Your task to perform on an android device: Add usb-c to usb-a to the cart on newegg.com Image 0: 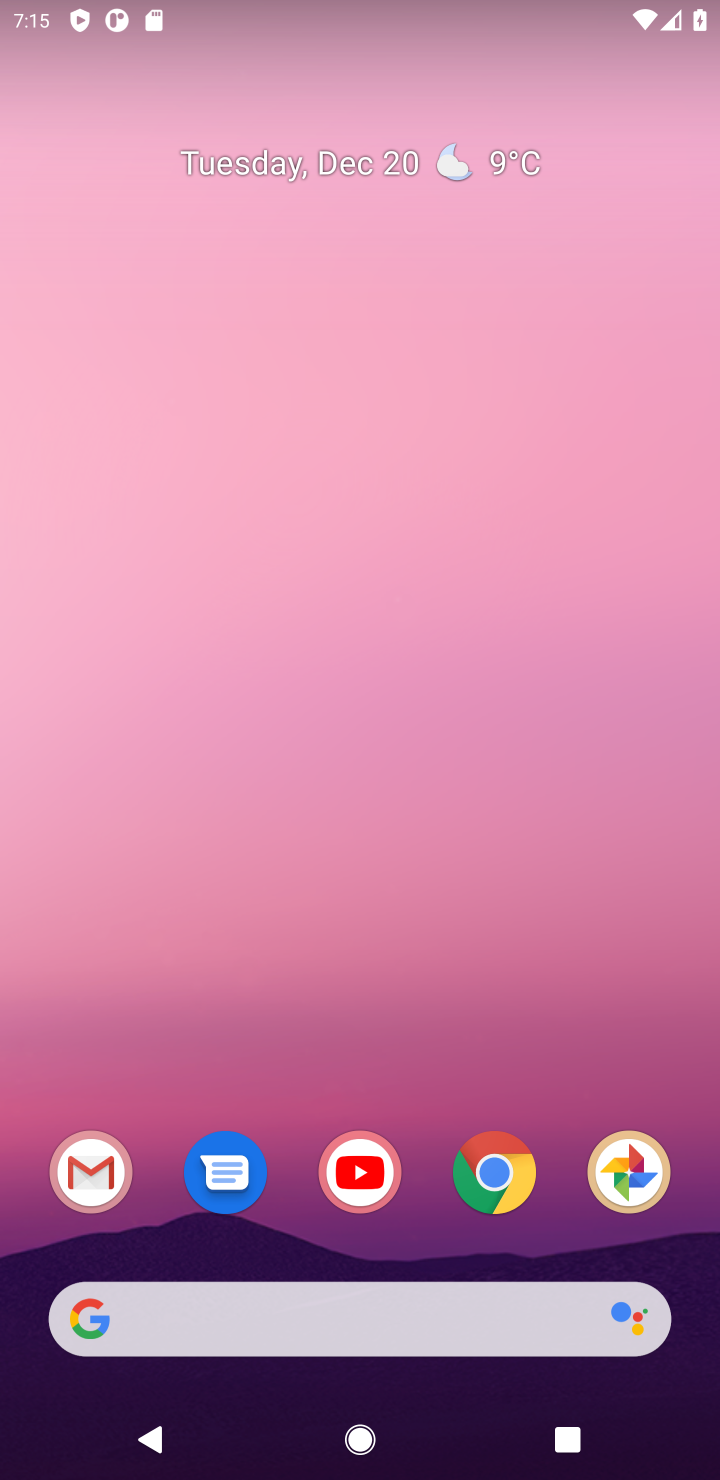
Step 0: press home button
Your task to perform on an android device: Add usb-c to usb-a to the cart on newegg.com Image 1: 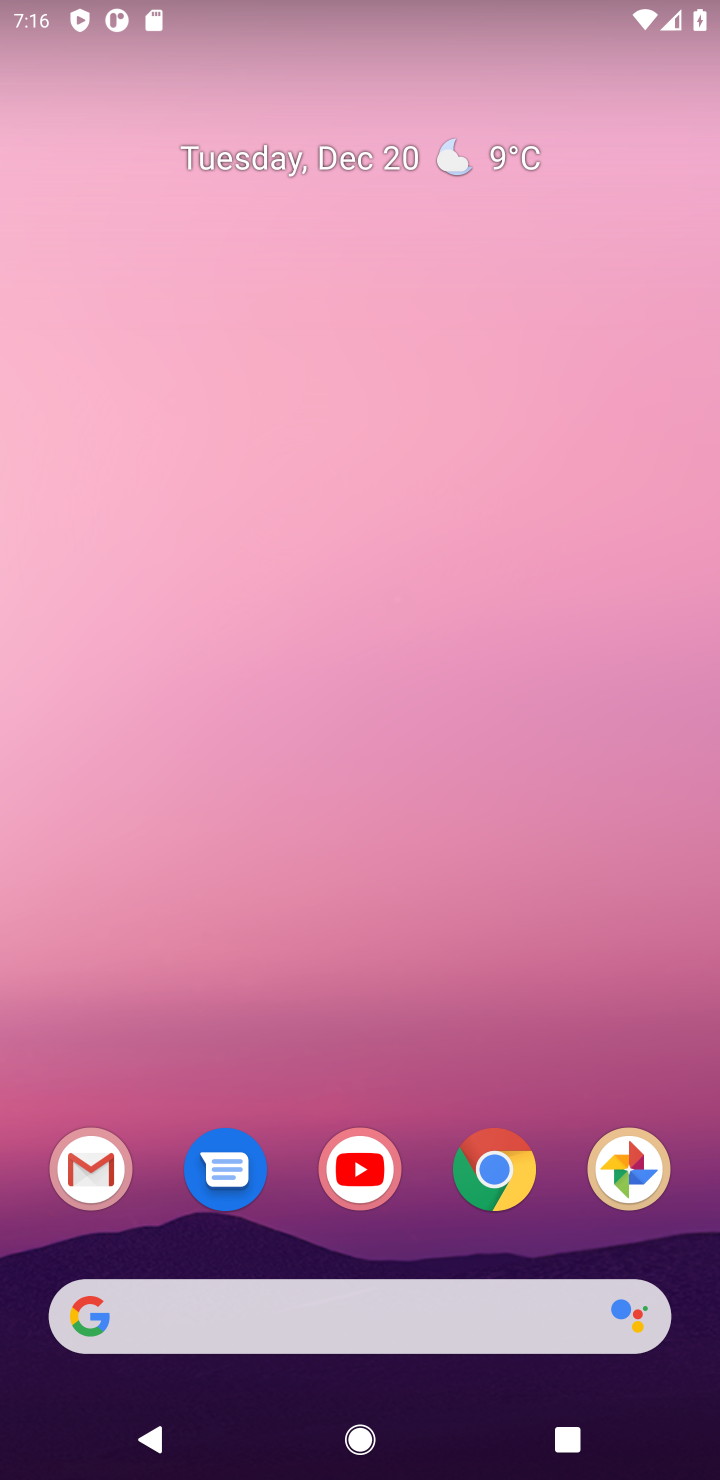
Step 1: click (507, 1195)
Your task to perform on an android device: Add usb-c to usb-a to the cart on newegg.com Image 2: 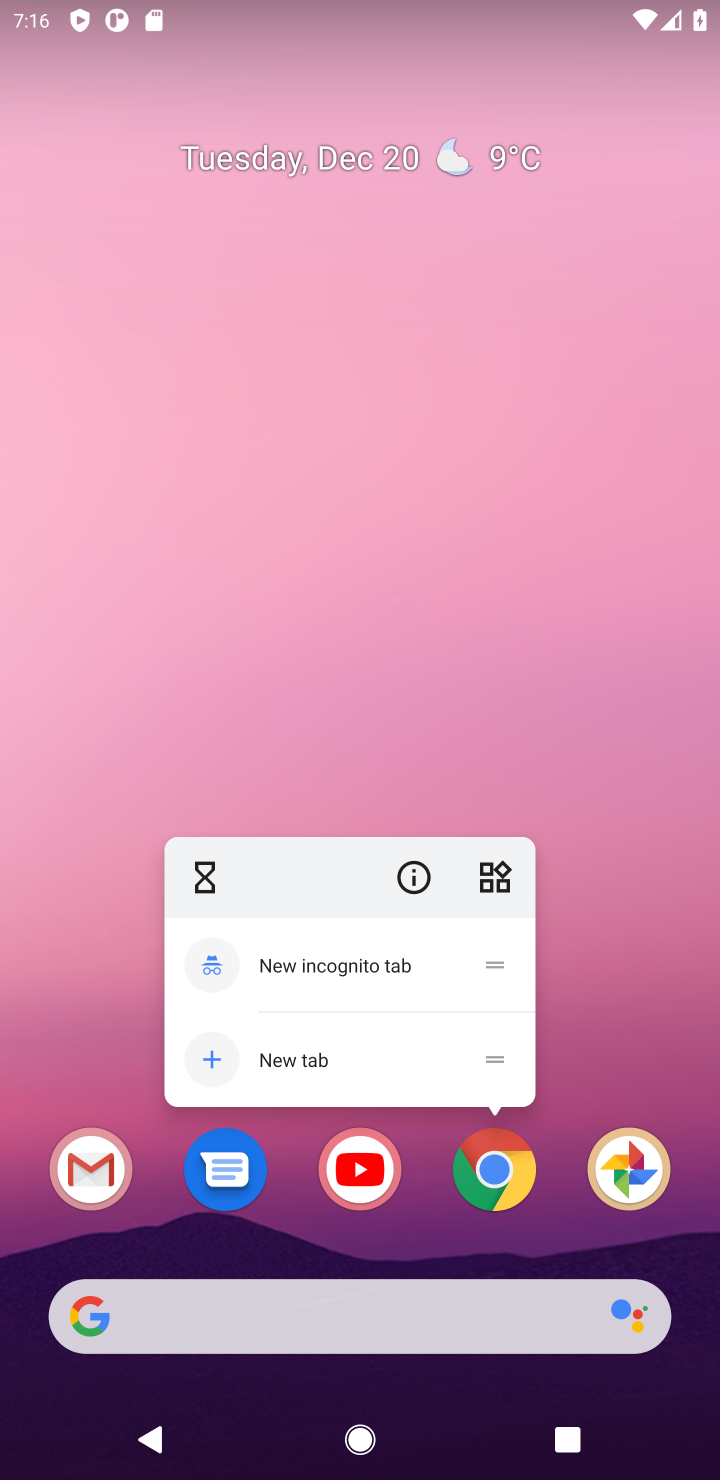
Step 2: click (507, 1195)
Your task to perform on an android device: Add usb-c to usb-a to the cart on newegg.com Image 3: 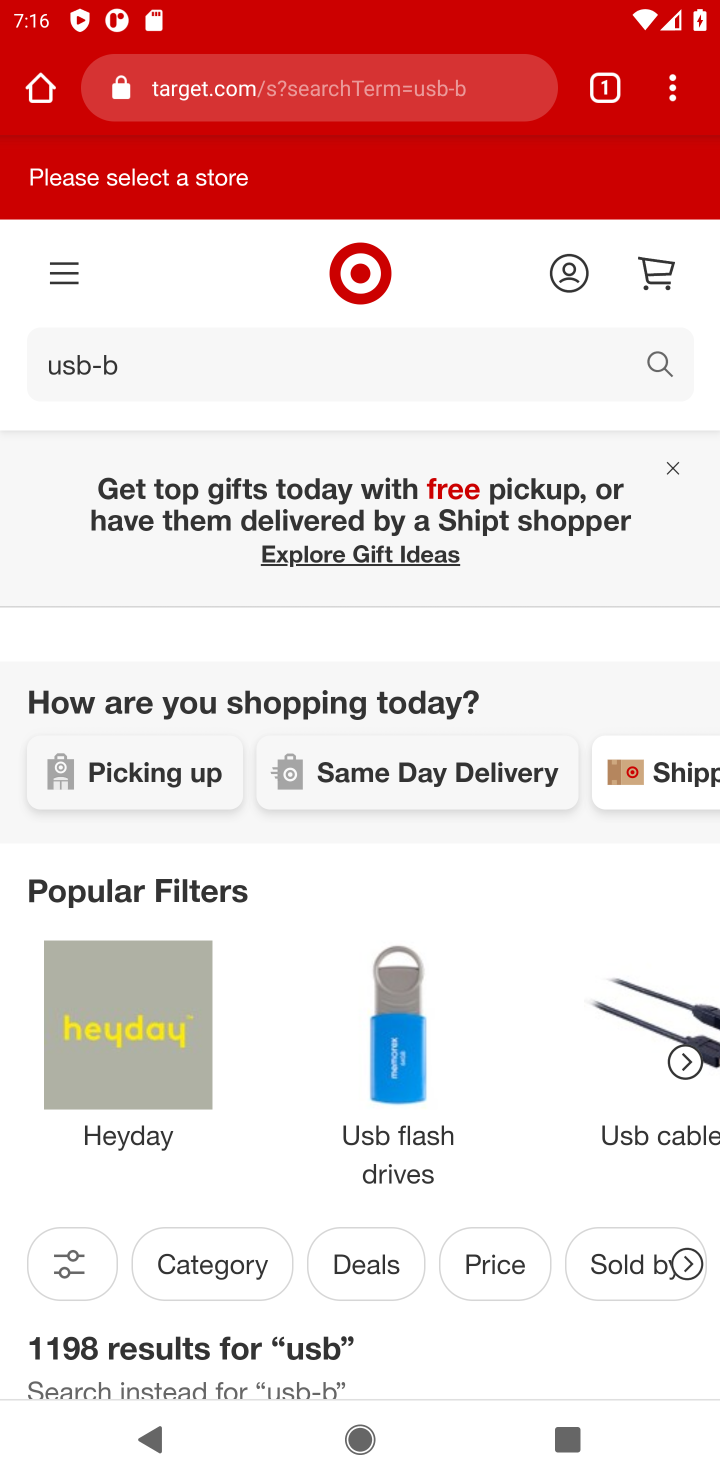
Step 3: click (252, 109)
Your task to perform on an android device: Add usb-c to usb-a to the cart on newegg.com Image 4: 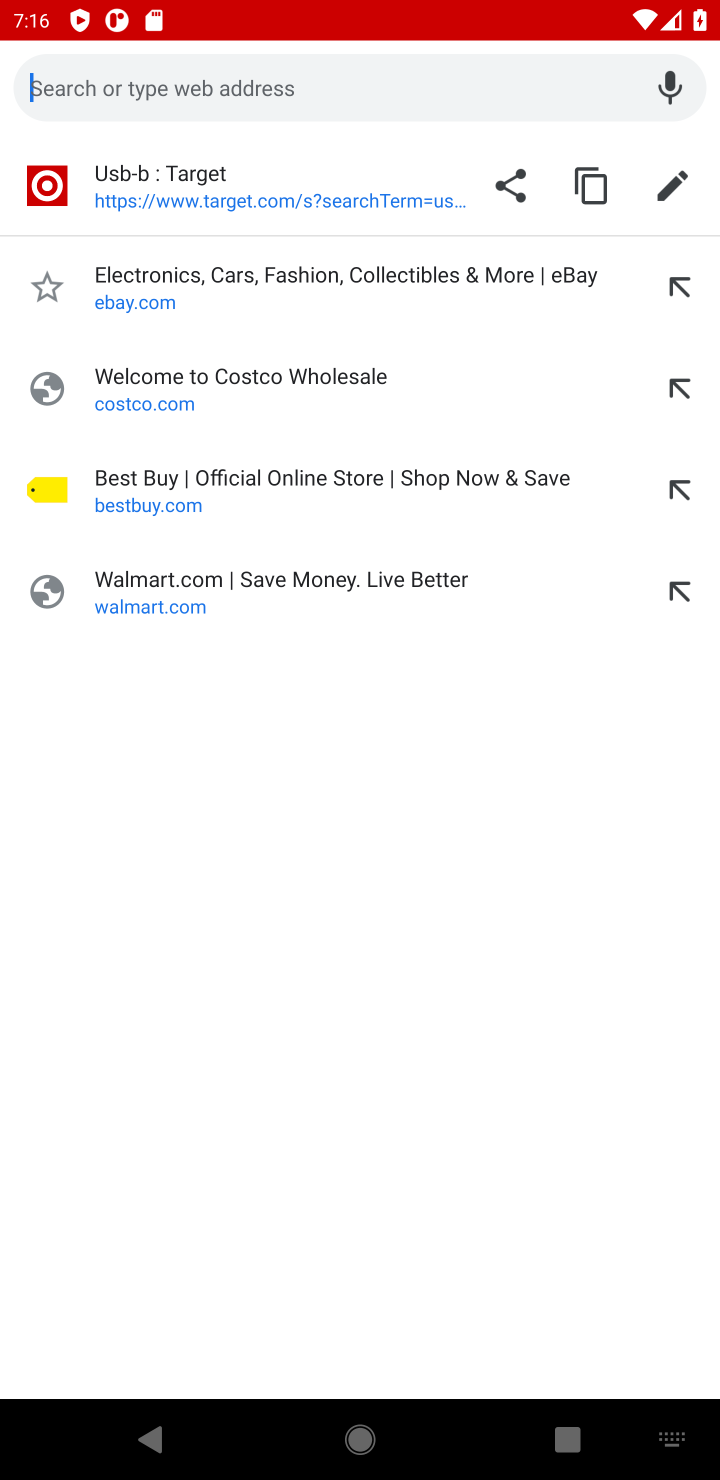
Step 4: type "newegg"
Your task to perform on an android device: Add usb-c to usb-a to the cart on newegg.com Image 5: 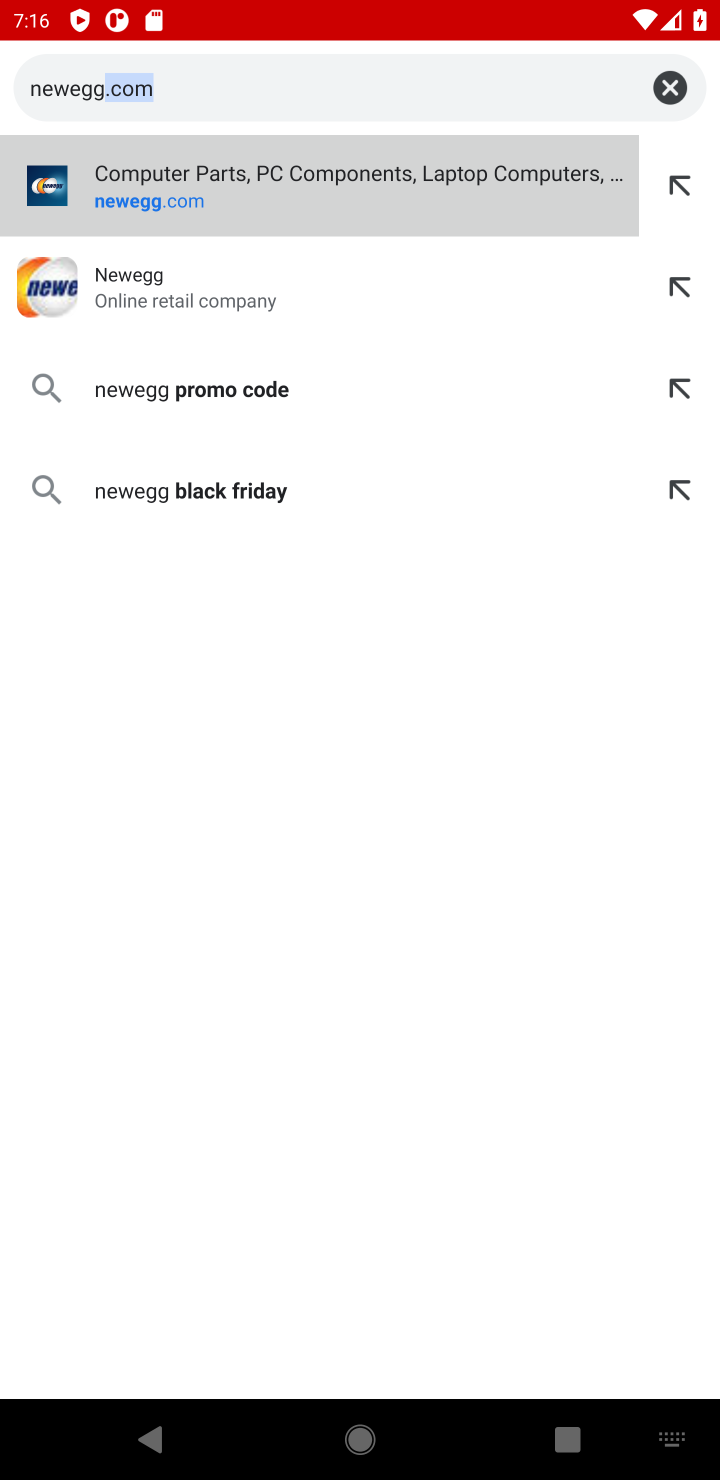
Step 5: click (247, 154)
Your task to perform on an android device: Add usb-c to usb-a to the cart on newegg.com Image 6: 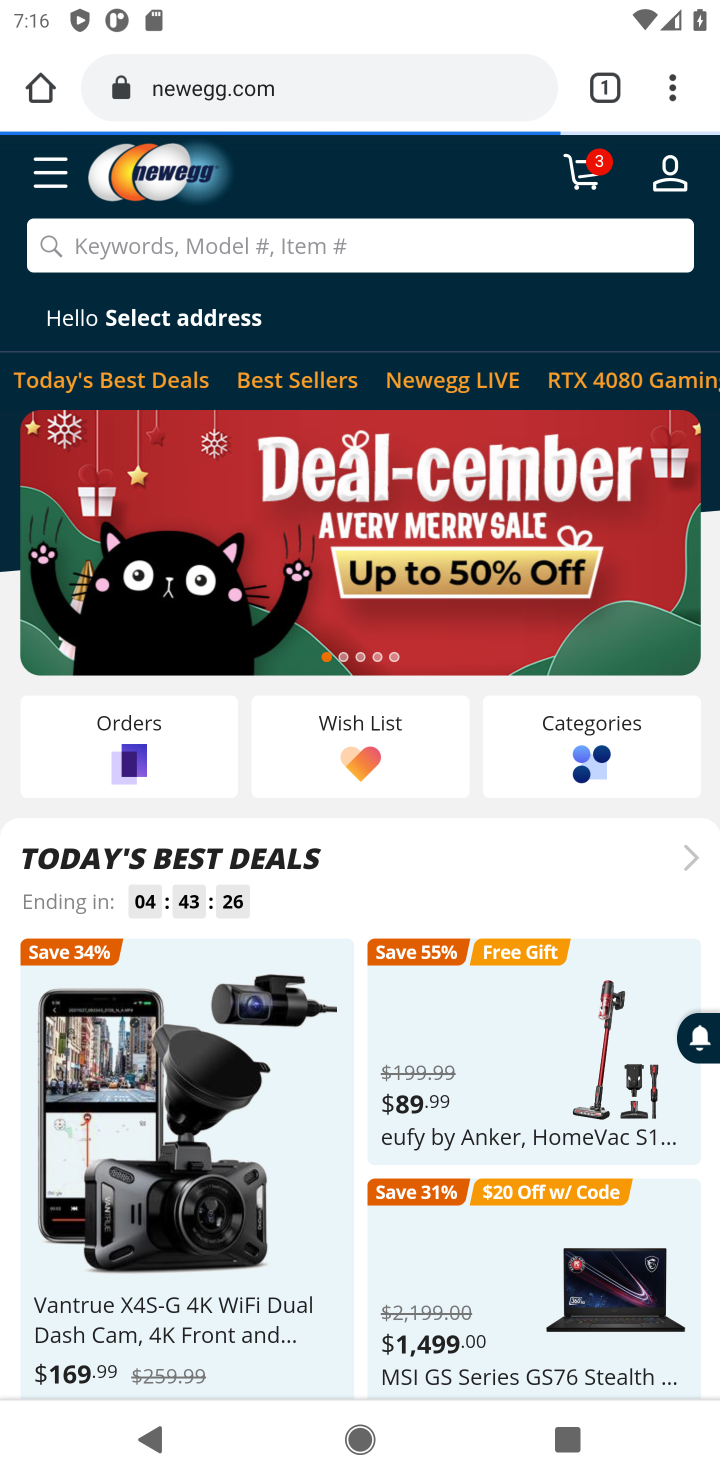
Step 6: click (207, 240)
Your task to perform on an android device: Add usb-c to usb-a to the cart on newegg.com Image 7: 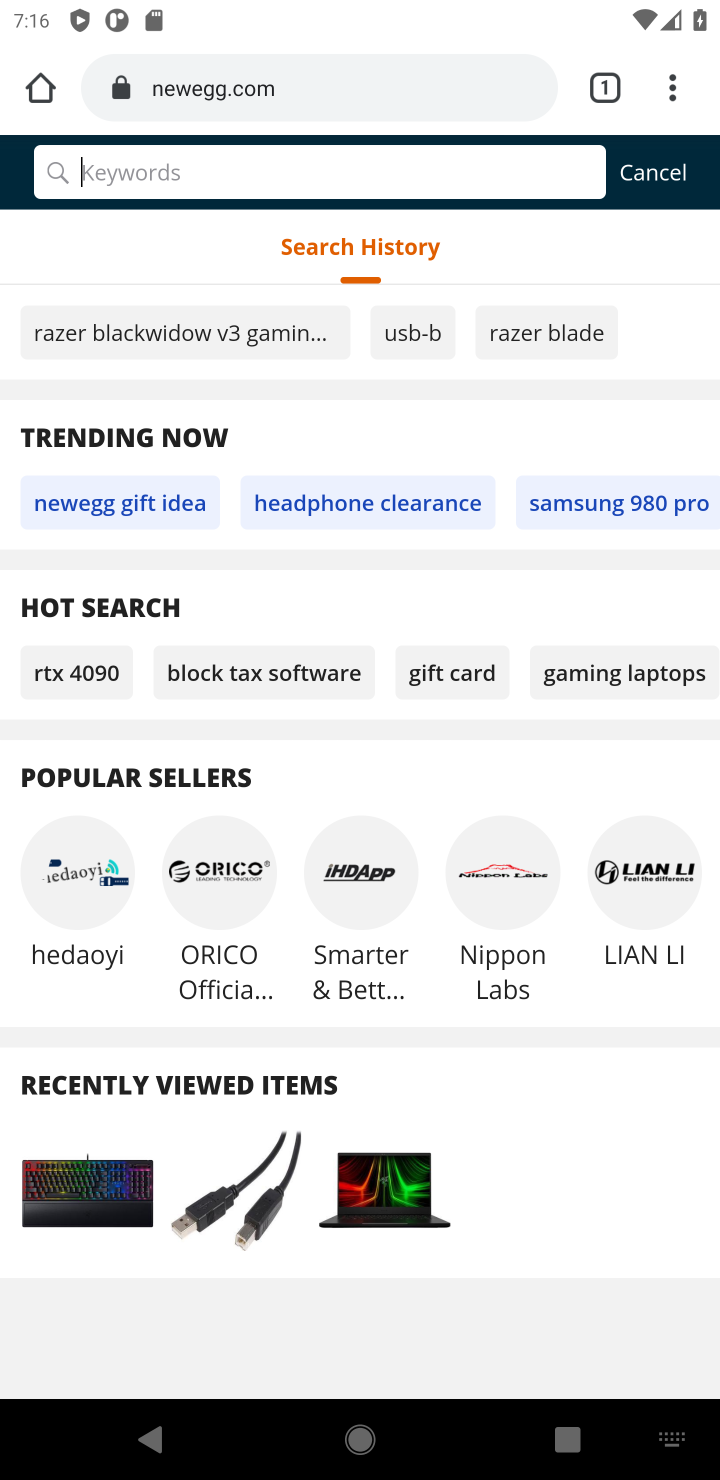
Step 7: type "usb-c to usb-a"
Your task to perform on an android device: Add usb-c to usb-a to the cart on newegg.com Image 8: 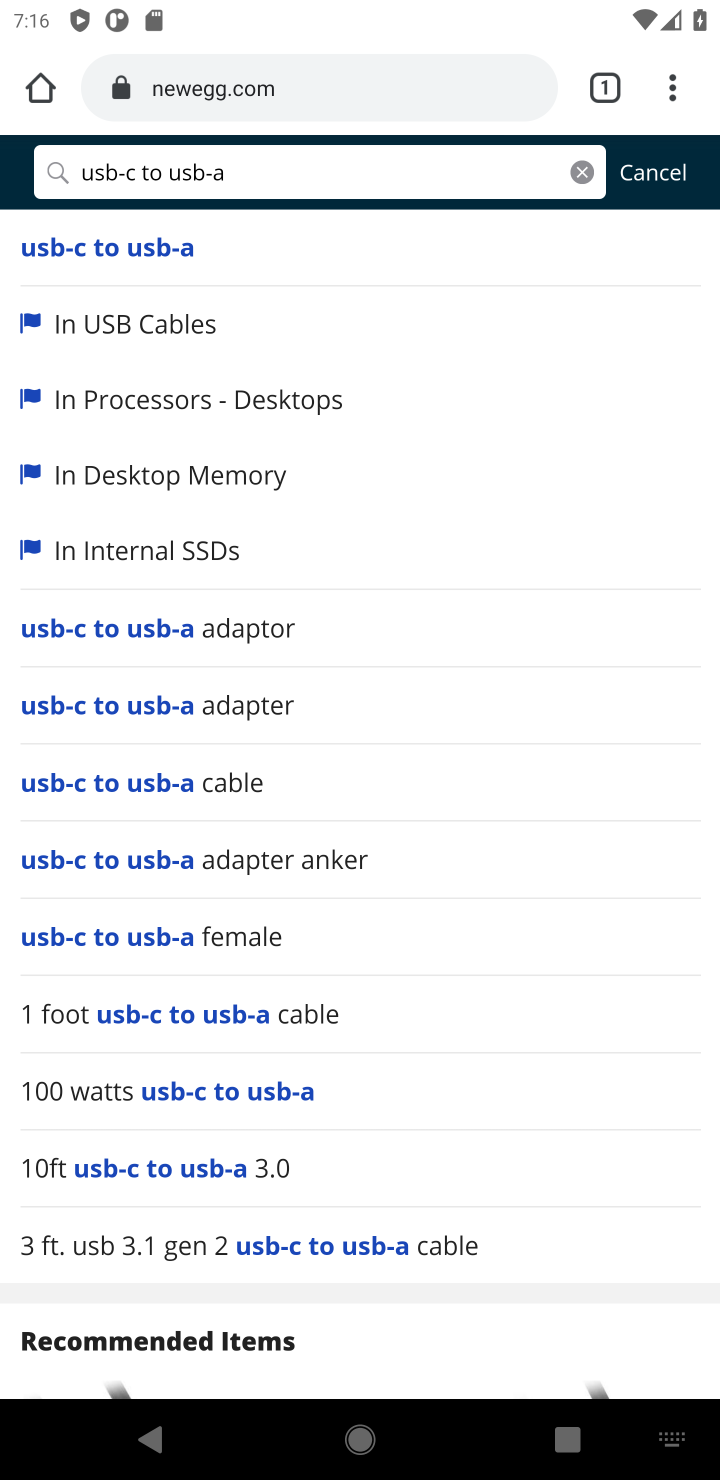
Step 8: click (91, 249)
Your task to perform on an android device: Add usb-c to usb-a to the cart on newegg.com Image 9: 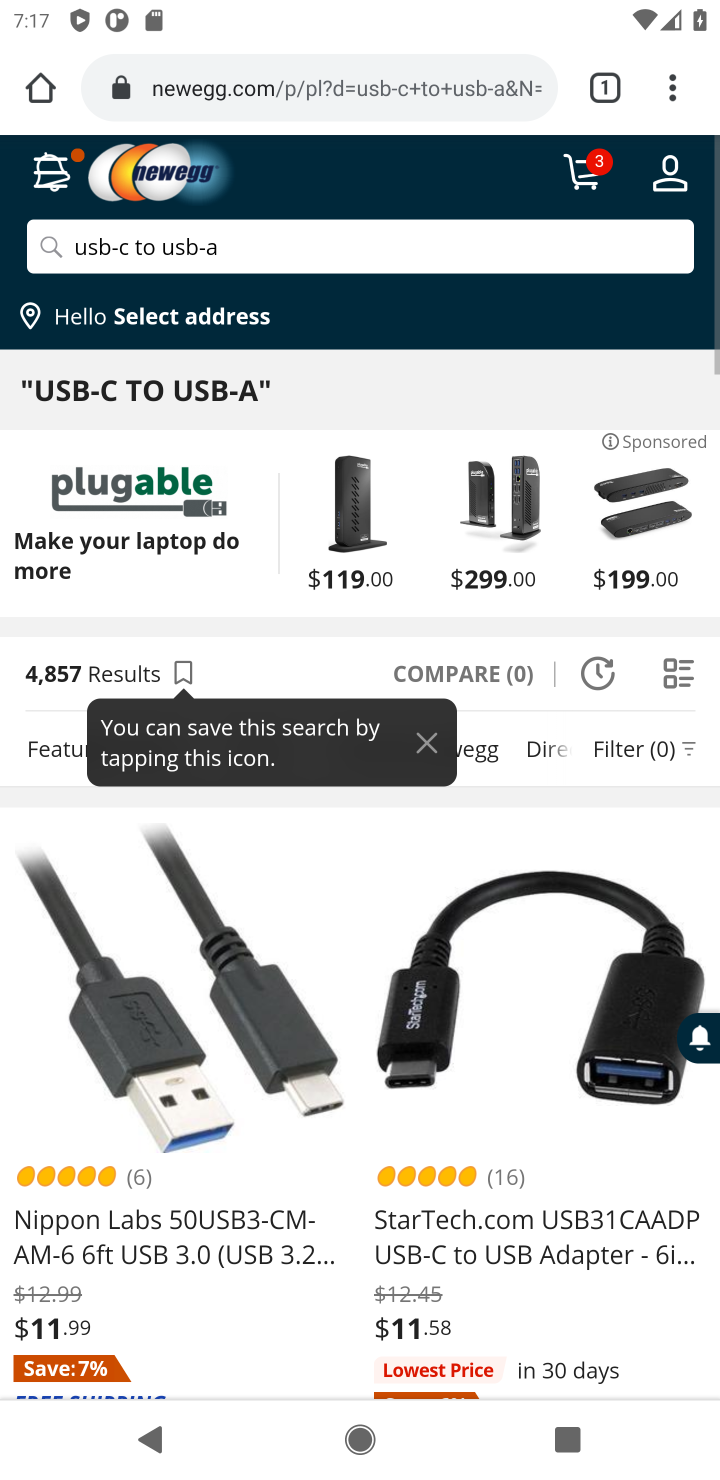
Step 9: click (93, 1226)
Your task to perform on an android device: Add usb-c to usb-a to the cart on newegg.com Image 10: 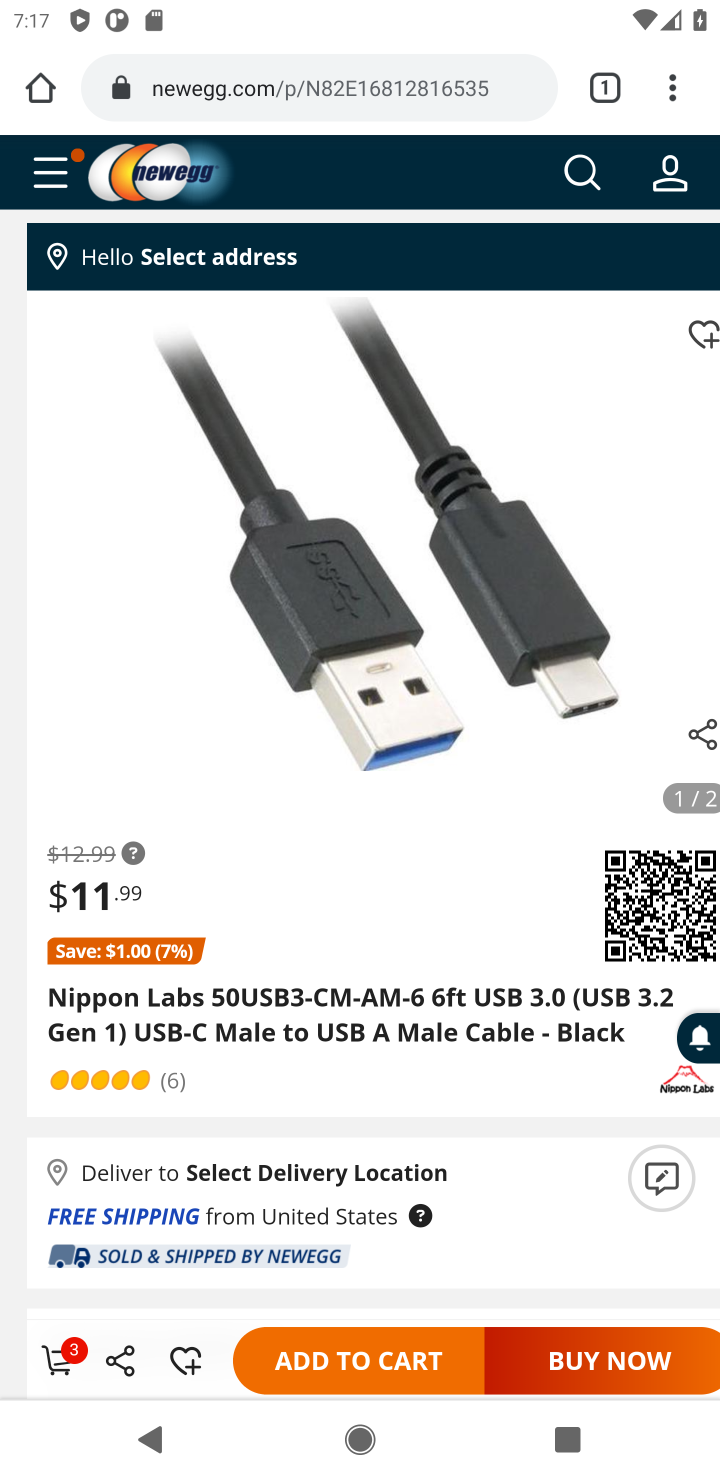
Step 10: click (329, 1367)
Your task to perform on an android device: Add usb-c to usb-a to the cart on newegg.com Image 11: 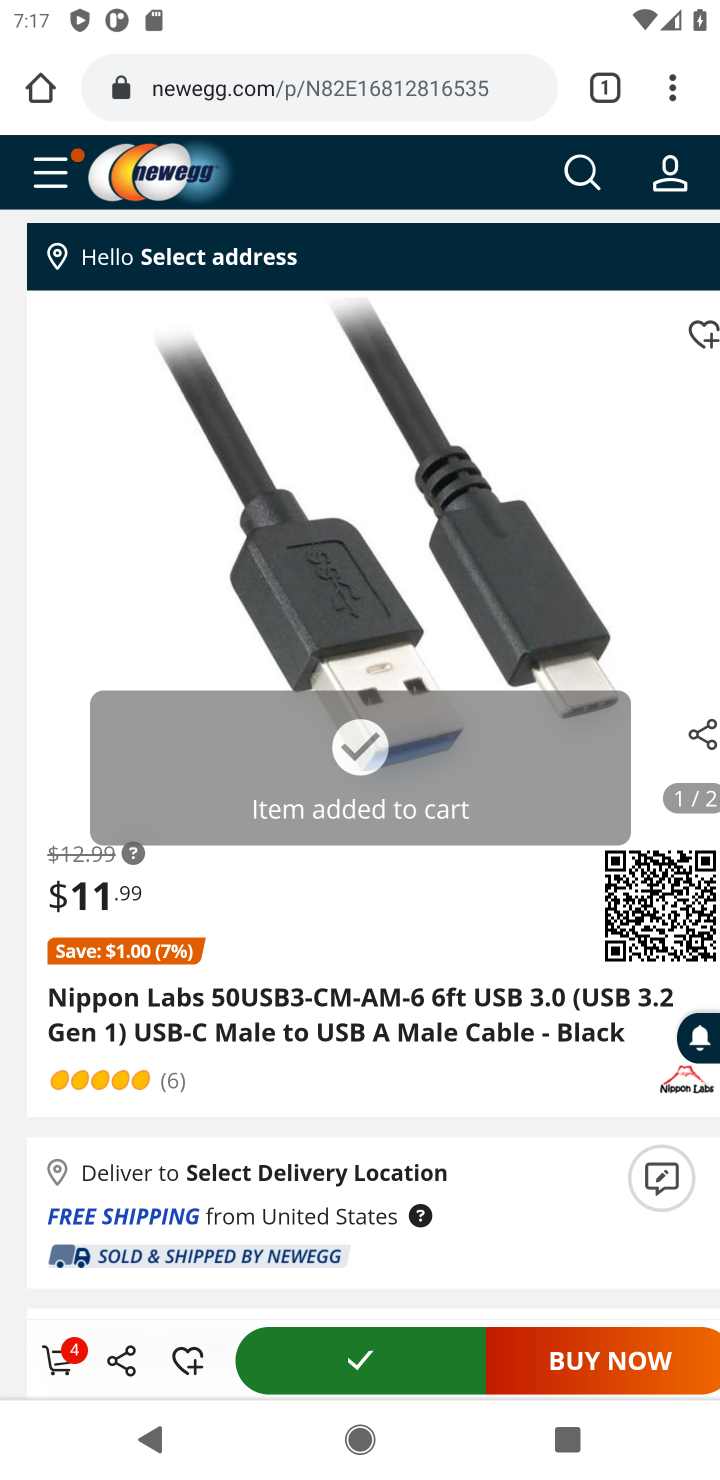
Step 11: task complete